Your task to perform on an android device: Open calendar and show me the third week of next month Image 0: 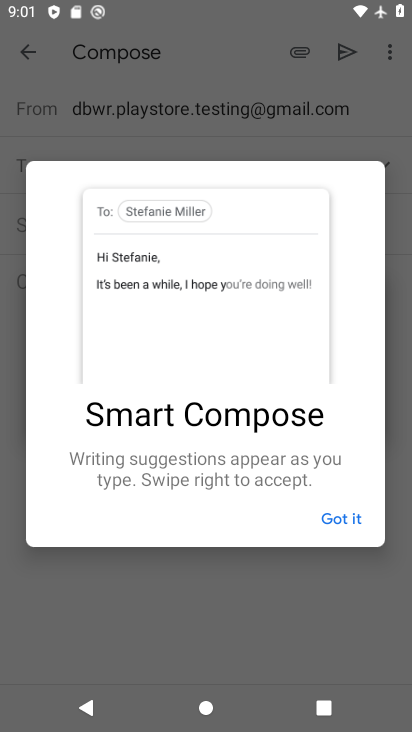
Step 0: press home button
Your task to perform on an android device: Open calendar and show me the third week of next month Image 1: 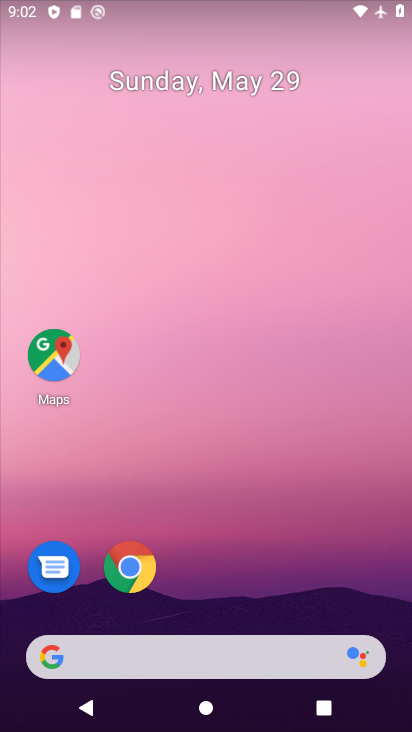
Step 1: drag from (384, 611) to (320, 32)
Your task to perform on an android device: Open calendar and show me the third week of next month Image 2: 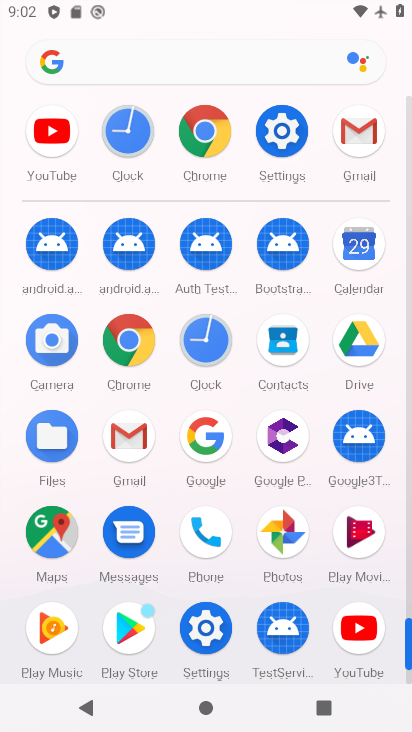
Step 2: click (356, 240)
Your task to perform on an android device: Open calendar and show me the third week of next month Image 3: 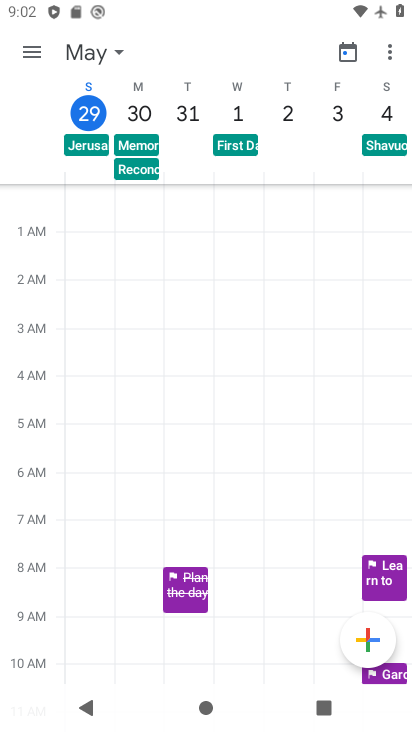
Step 3: click (29, 43)
Your task to perform on an android device: Open calendar and show me the third week of next month Image 4: 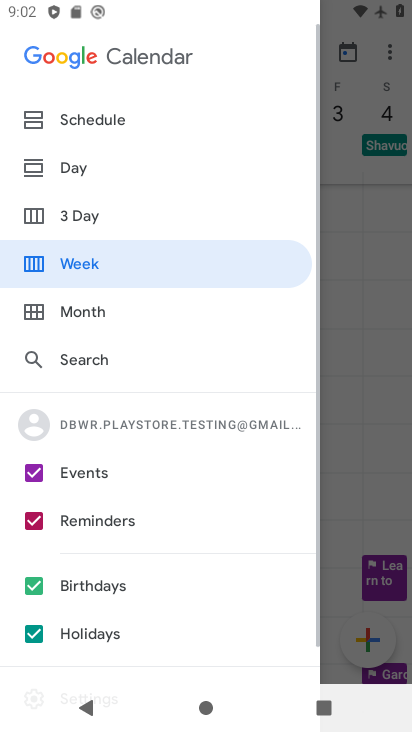
Step 4: click (154, 248)
Your task to perform on an android device: Open calendar and show me the third week of next month Image 5: 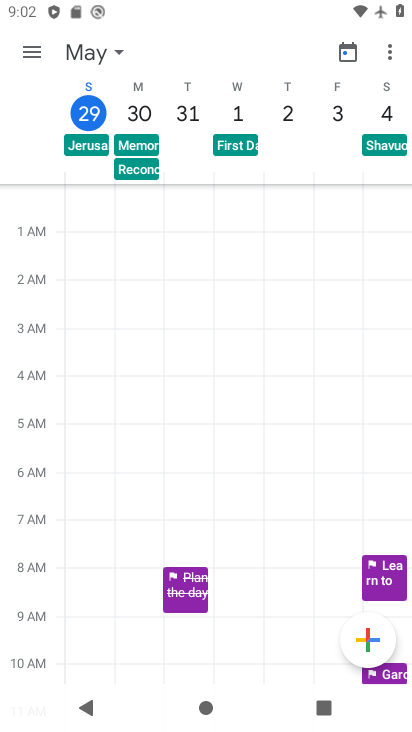
Step 5: click (116, 50)
Your task to perform on an android device: Open calendar and show me the third week of next month Image 6: 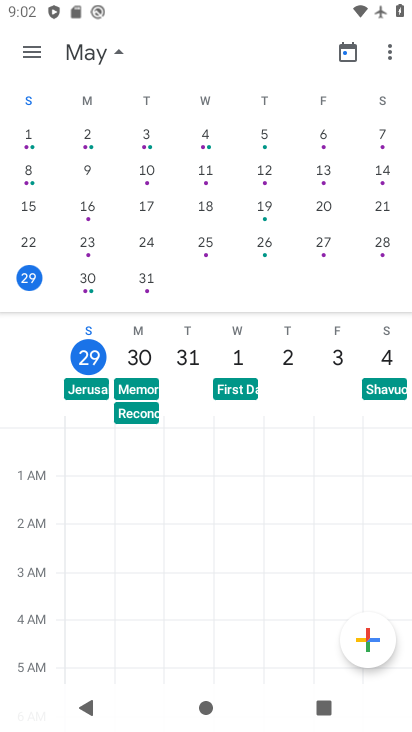
Step 6: drag from (383, 190) to (47, 229)
Your task to perform on an android device: Open calendar and show me the third week of next month Image 7: 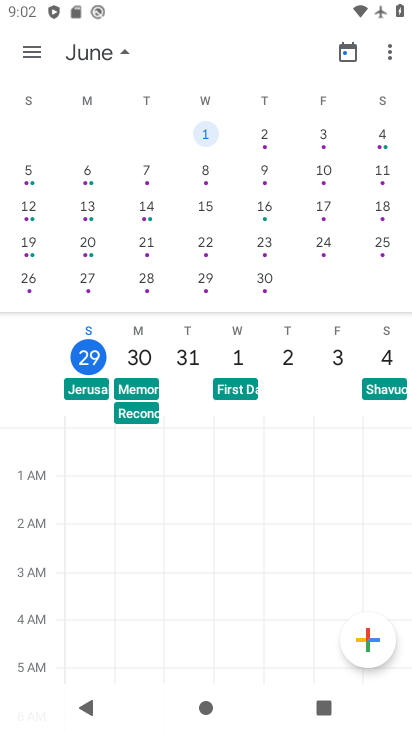
Step 7: click (23, 246)
Your task to perform on an android device: Open calendar and show me the third week of next month Image 8: 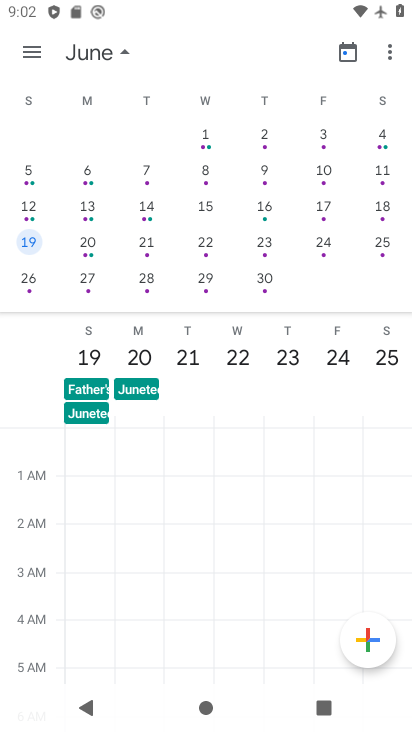
Step 8: task complete